Your task to perform on an android device: What is the recent news? Image 0: 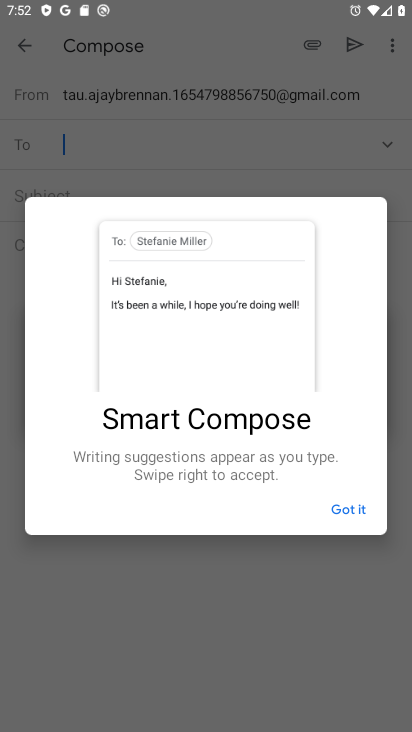
Step 0: press home button
Your task to perform on an android device: What is the recent news? Image 1: 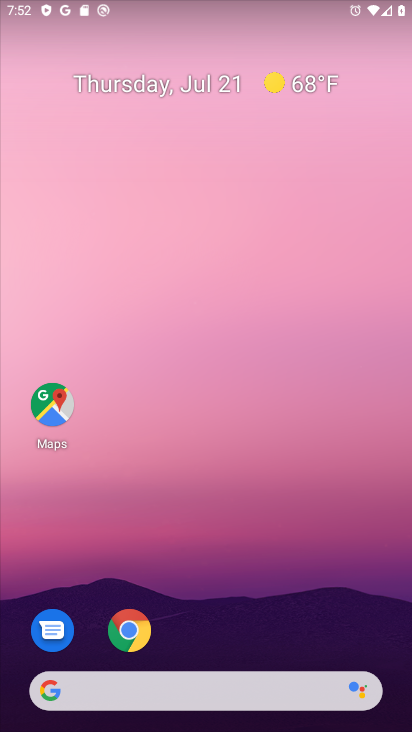
Step 1: drag from (224, 621) to (216, 163)
Your task to perform on an android device: What is the recent news? Image 2: 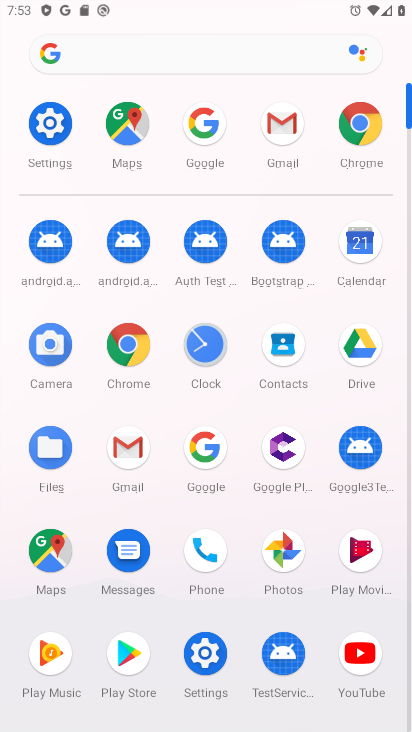
Step 2: click (350, 129)
Your task to perform on an android device: What is the recent news? Image 3: 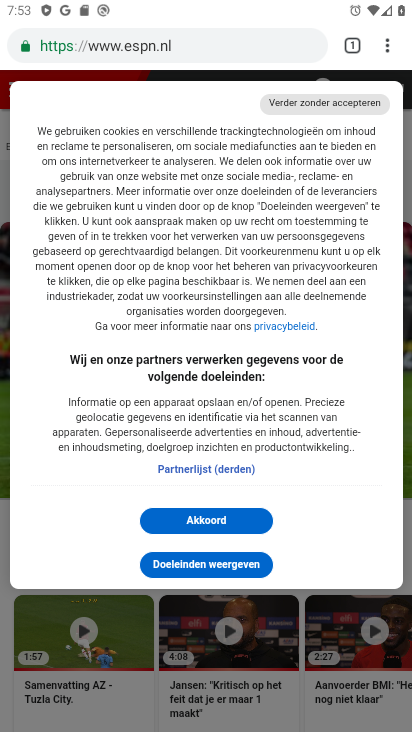
Step 3: task complete